Your task to perform on an android device: Open Android settings Image 0: 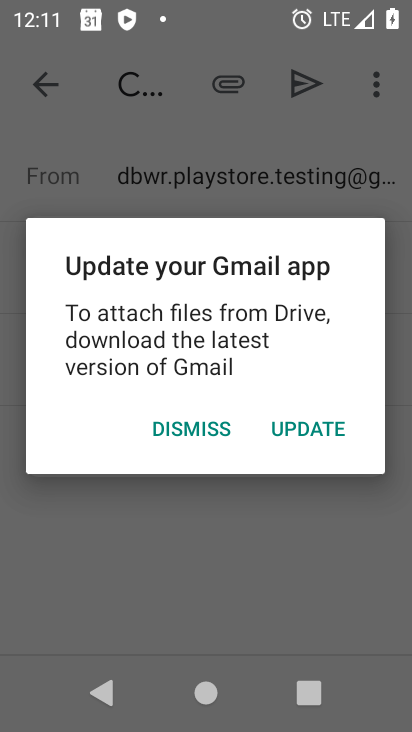
Step 0: press back button
Your task to perform on an android device: Open Android settings Image 1: 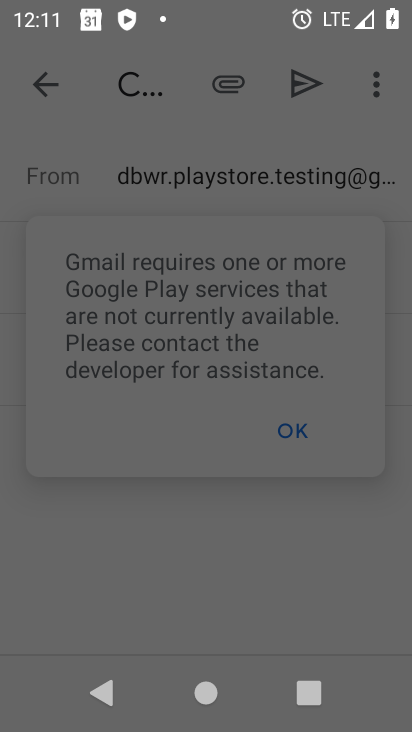
Step 1: press back button
Your task to perform on an android device: Open Android settings Image 2: 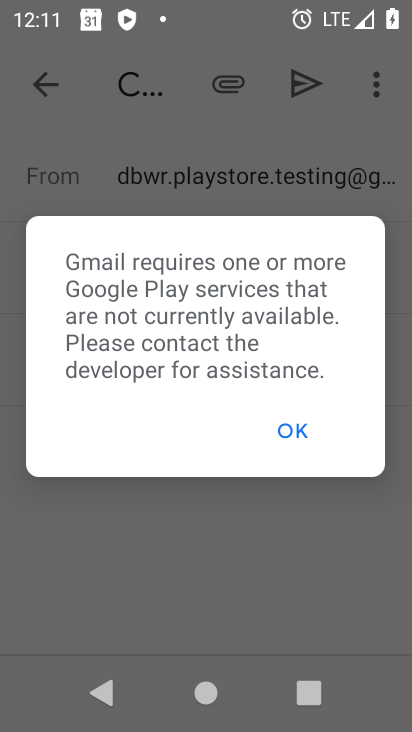
Step 2: press back button
Your task to perform on an android device: Open Android settings Image 3: 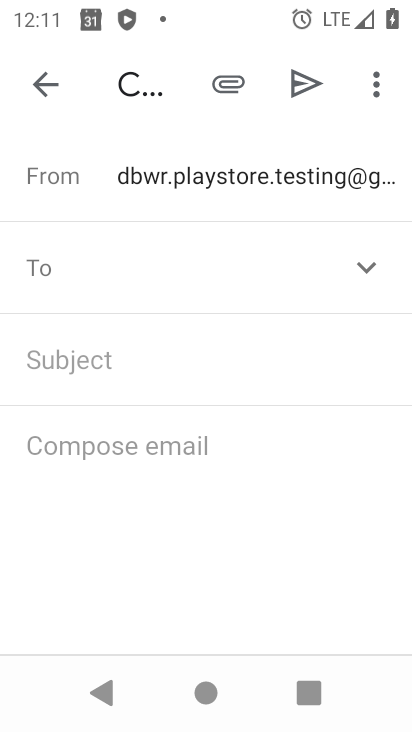
Step 3: press back button
Your task to perform on an android device: Open Android settings Image 4: 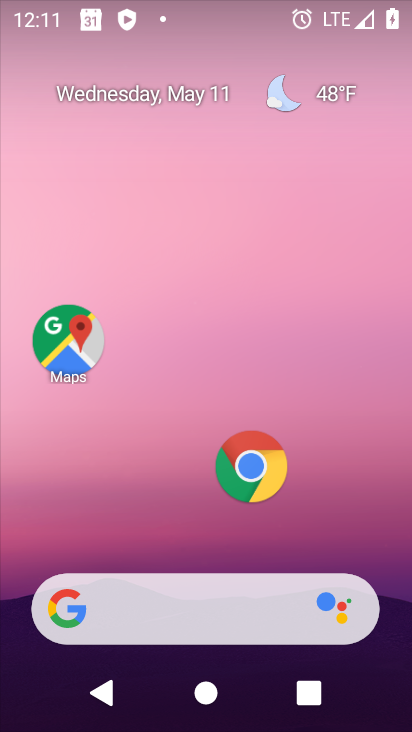
Step 4: drag from (223, 390) to (253, 74)
Your task to perform on an android device: Open Android settings Image 5: 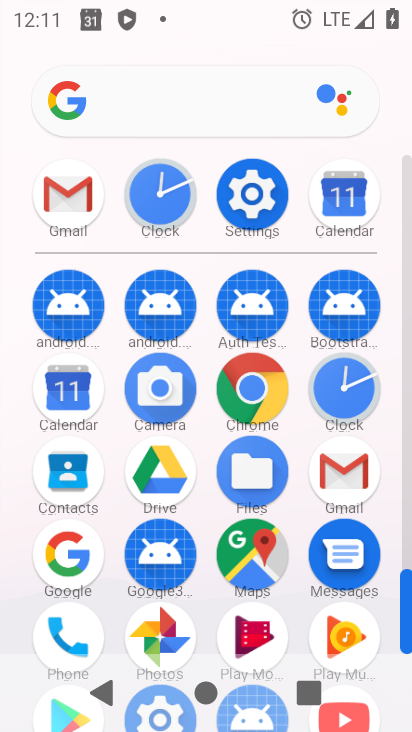
Step 5: click (264, 189)
Your task to perform on an android device: Open Android settings Image 6: 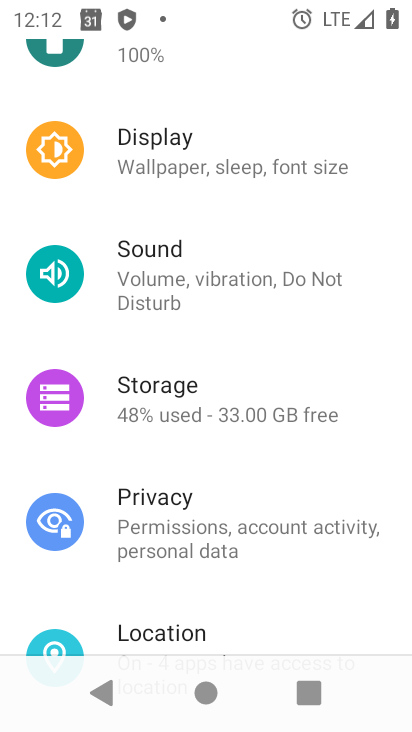
Step 6: drag from (188, 605) to (282, 45)
Your task to perform on an android device: Open Android settings Image 7: 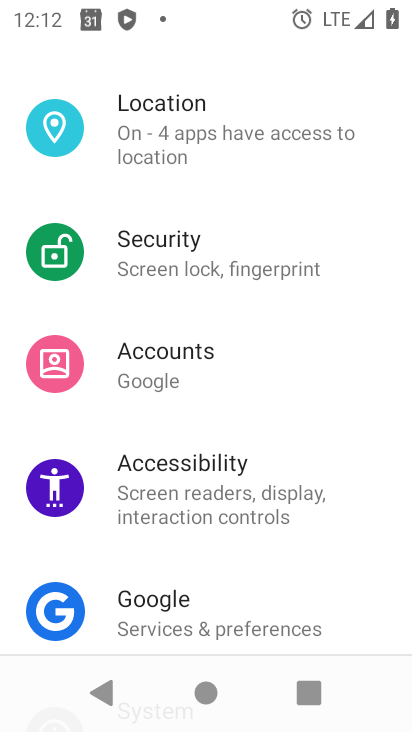
Step 7: drag from (209, 648) to (305, 55)
Your task to perform on an android device: Open Android settings Image 8: 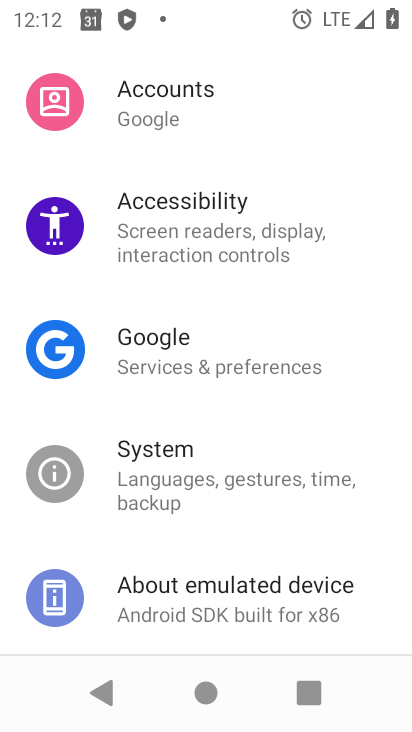
Step 8: click (198, 594)
Your task to perform on an android device: Open Android settings Image 9: 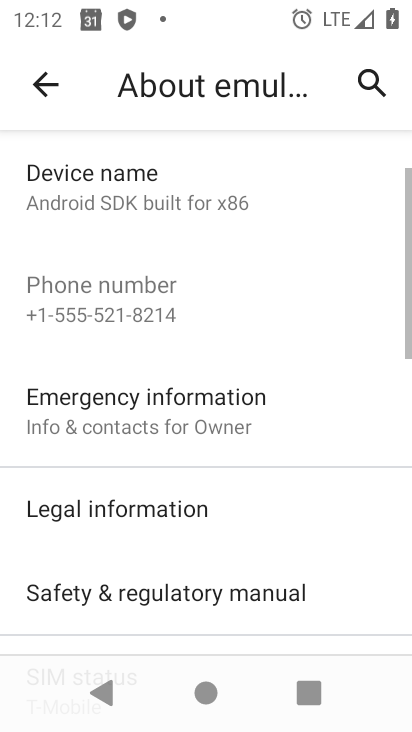
Step 9: drag from (159, 579) to (254, 85)
Your task to perform on an android device: Open Android settings Image 10: 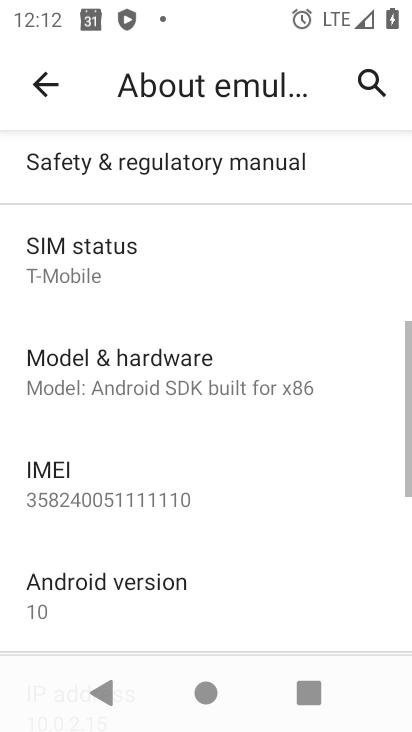
Step 10: click (83, 588)
Your task to perform on an android device: Open Android settings Image 11: 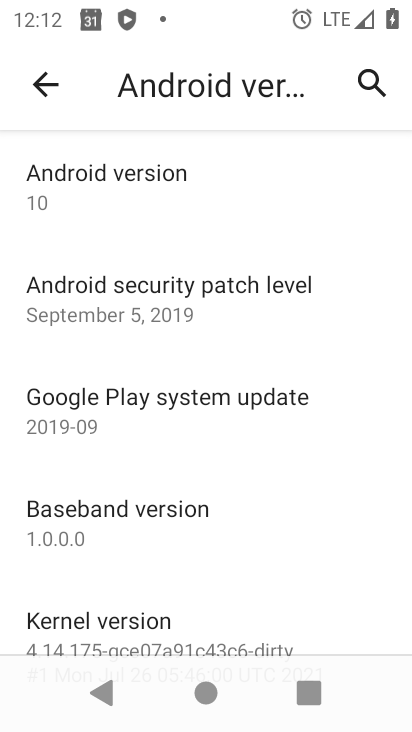
Step 11: task complete